Your task to perform on an android device: turn off priority inbox in the gmail app Image 0: 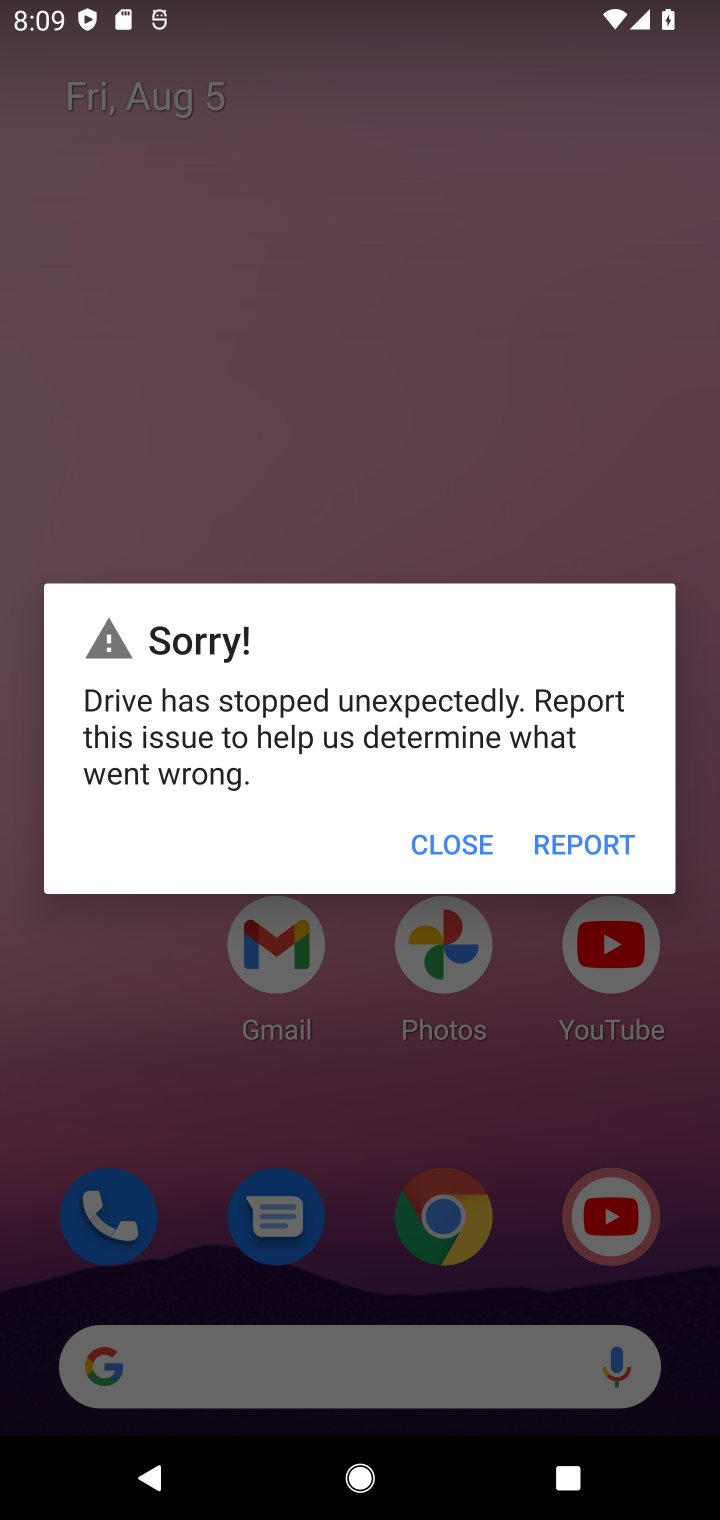
Step 0: press back button
Your task to perform on an android device: turn off priority inbox in the gmail app Image 1: 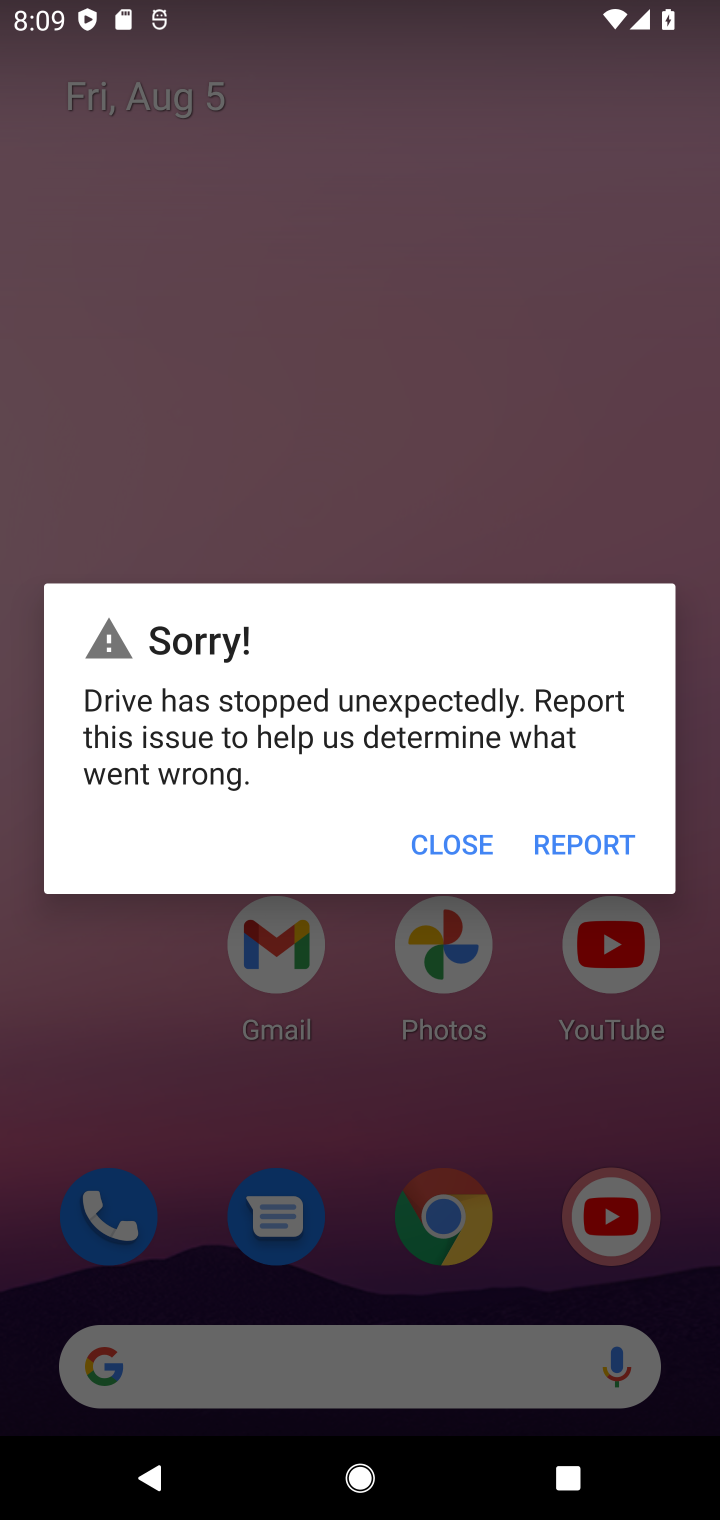
Step 1: press home button
Your task to perform on an android device: turn off priority inbox in the gmail app Image 2: 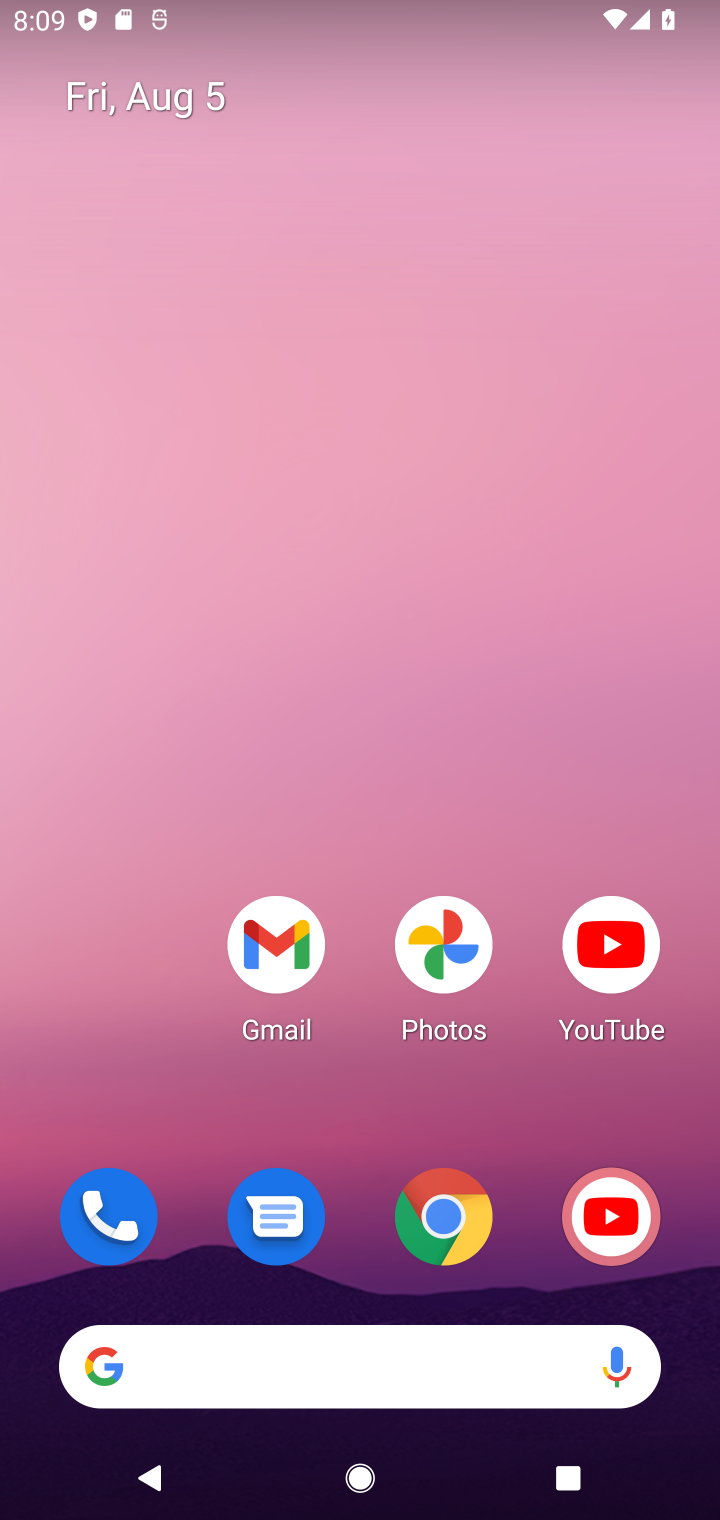
Step 2: drag from (340, 1091) to (265, 224)
Your task to perform on an android device: turn off priority inbox in the gmail app Image 3: 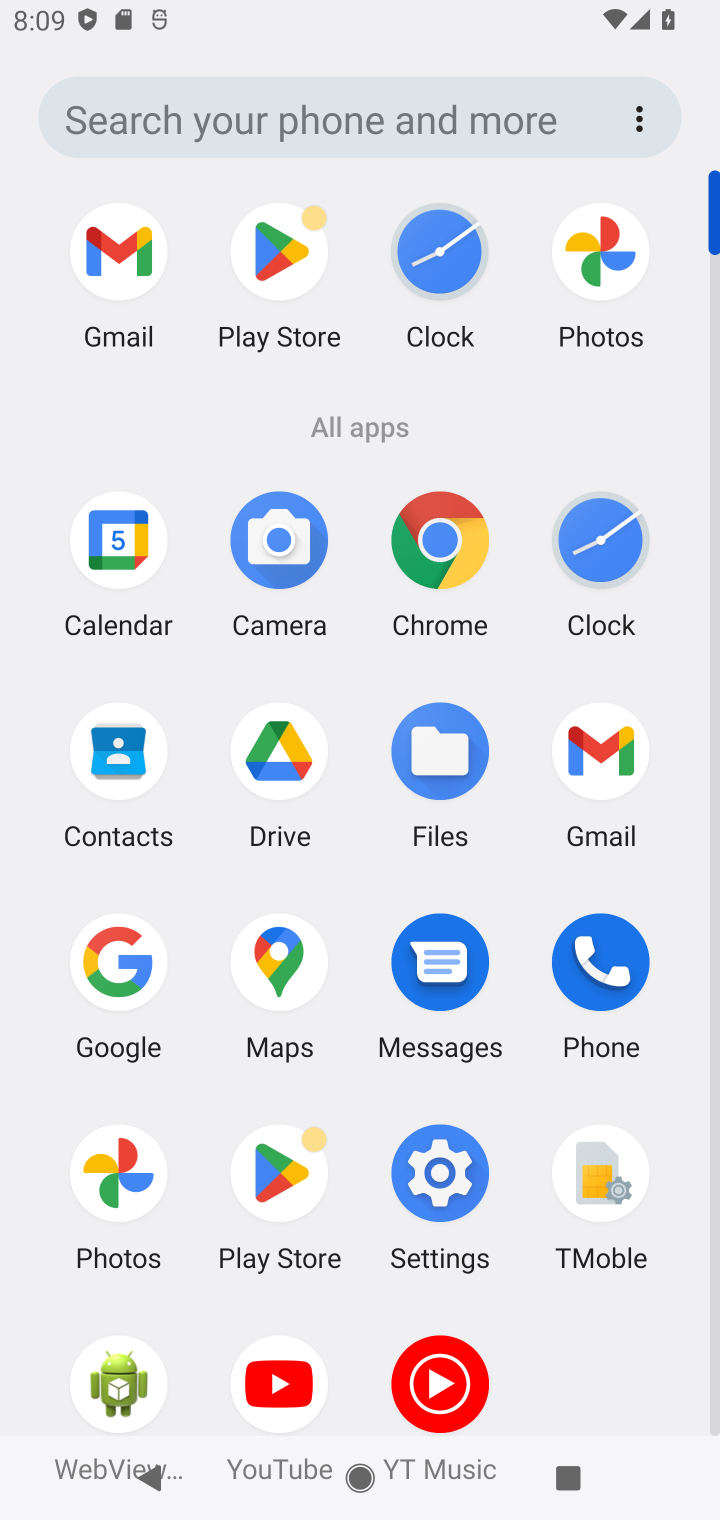
Step 3: click (583, 740)
Your task to perform on an android device: turn off priority inbox in the gmail app Image 4: 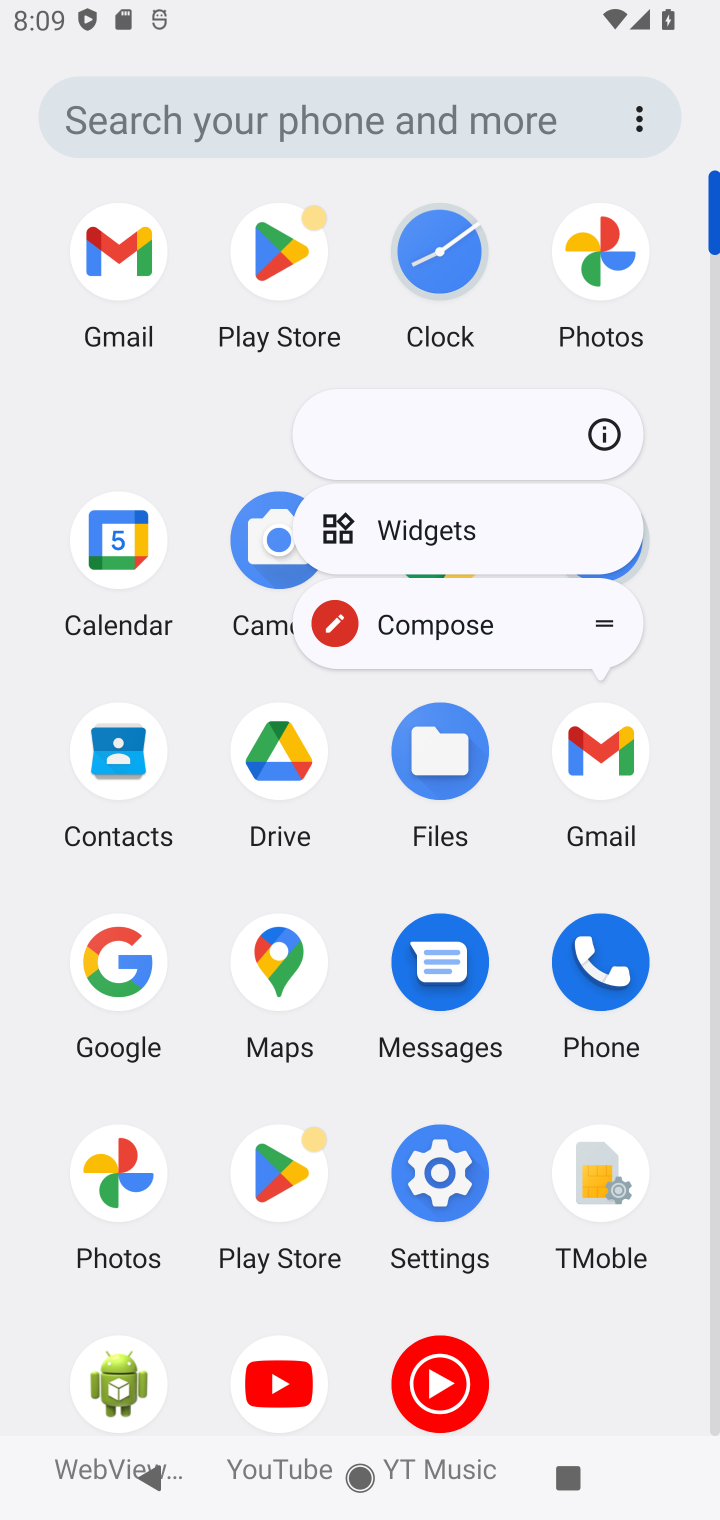
Step 4: click (601, 420)
Your task to perform on an android device: turn off priority inbox in the gmail app Image 5: 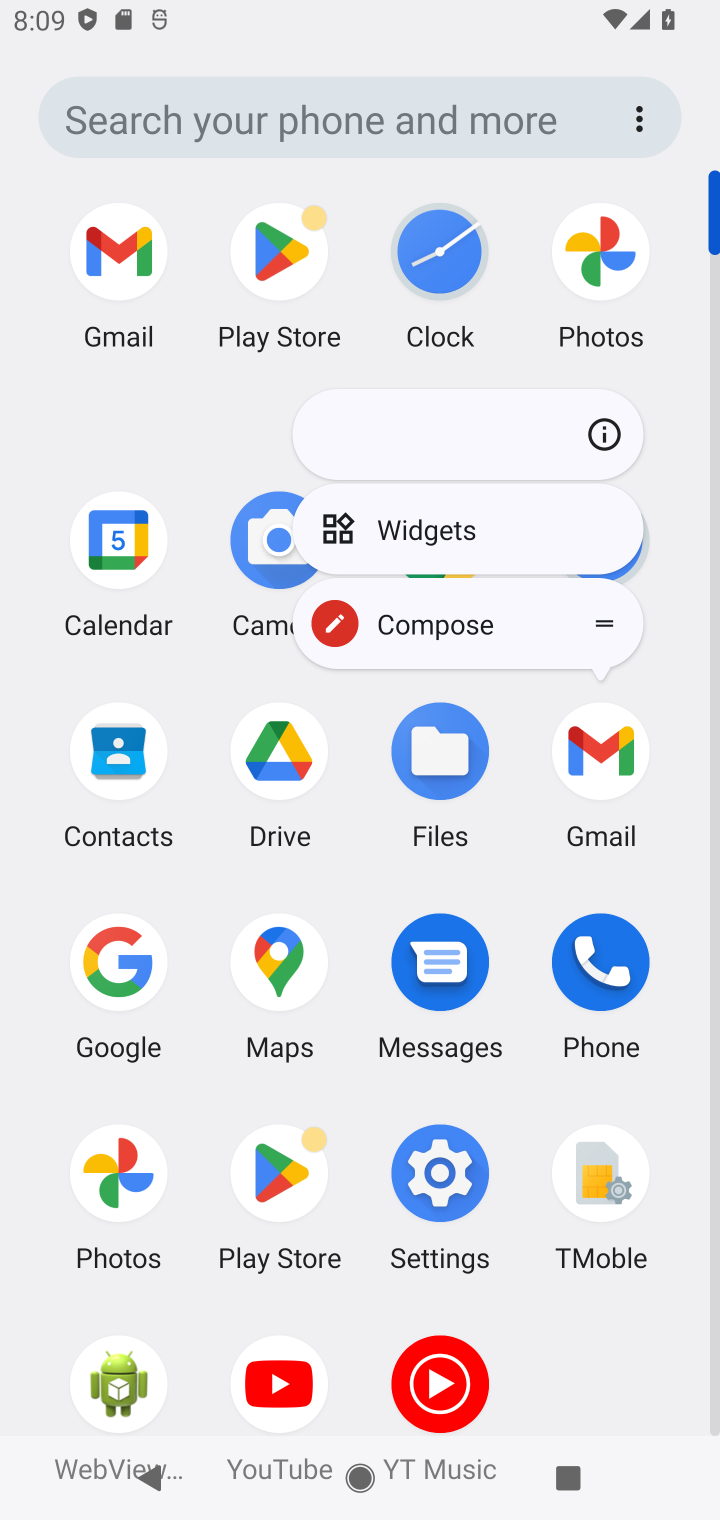
Step 5: click (597, 428)
Your task to perform on an android device: turn off priority inbox in the gmail app Image 6: 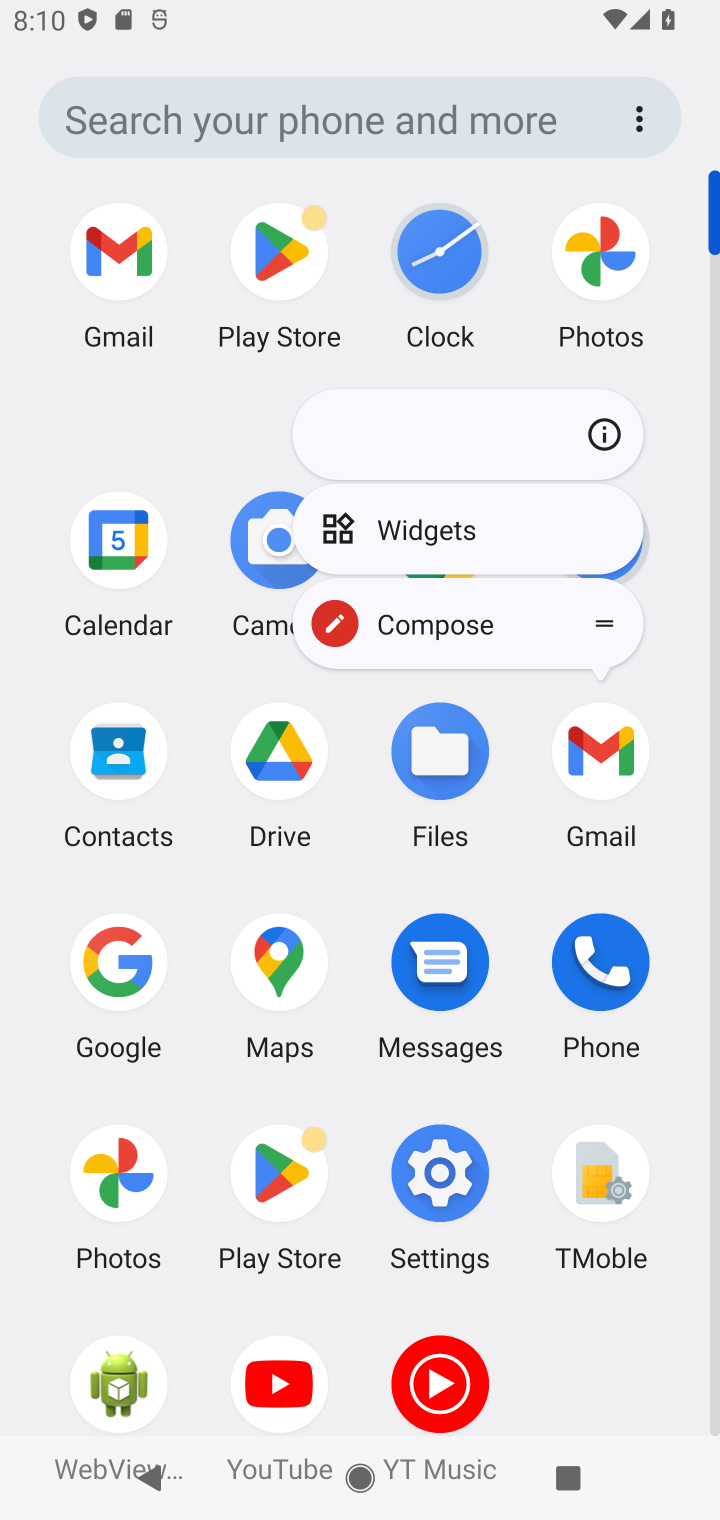
Step 6: click (623, 420)
Your task to perform on an android device: turn off priority inbox in the gmail app Image 7: 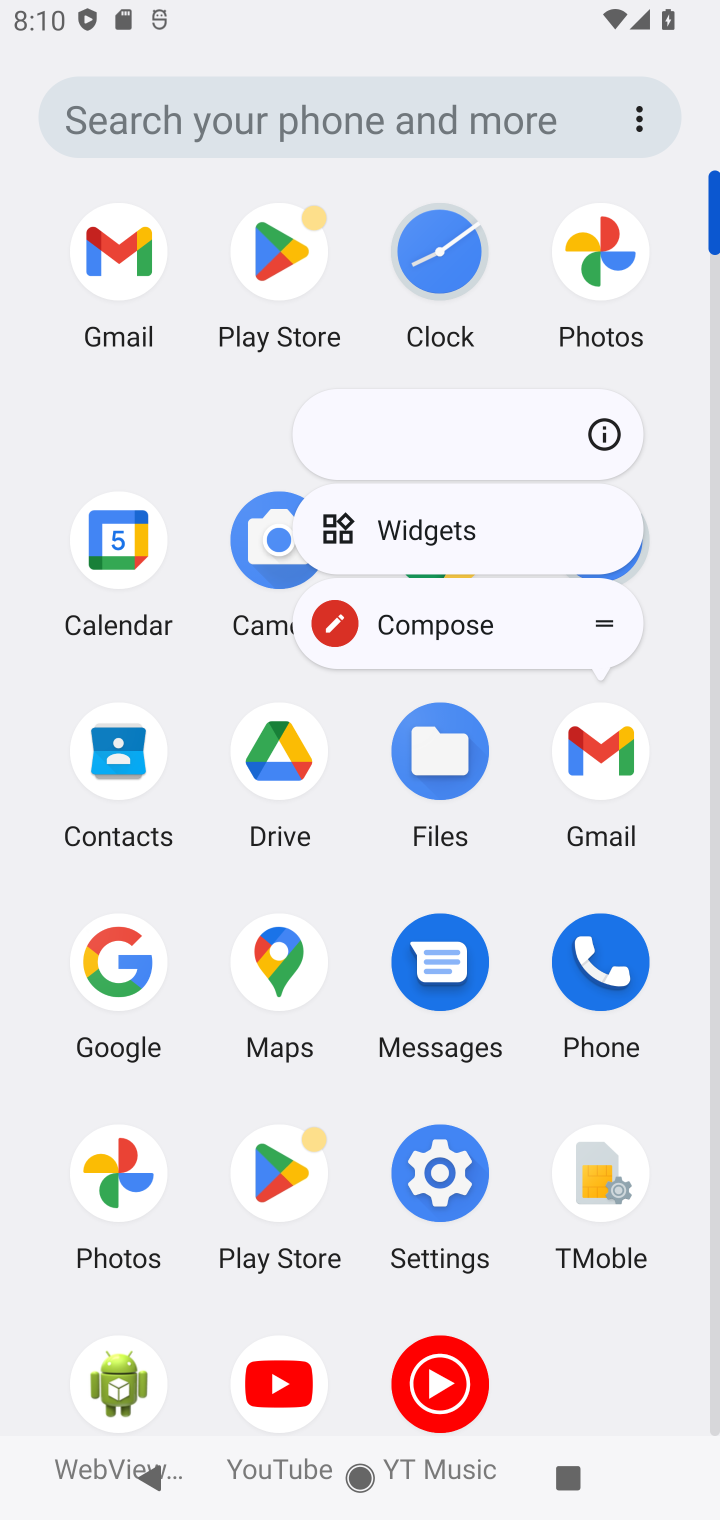
Step 7: click (607, 417)
Your task to perform on an android device: turn off priority inbox in the gmail app Image 8: 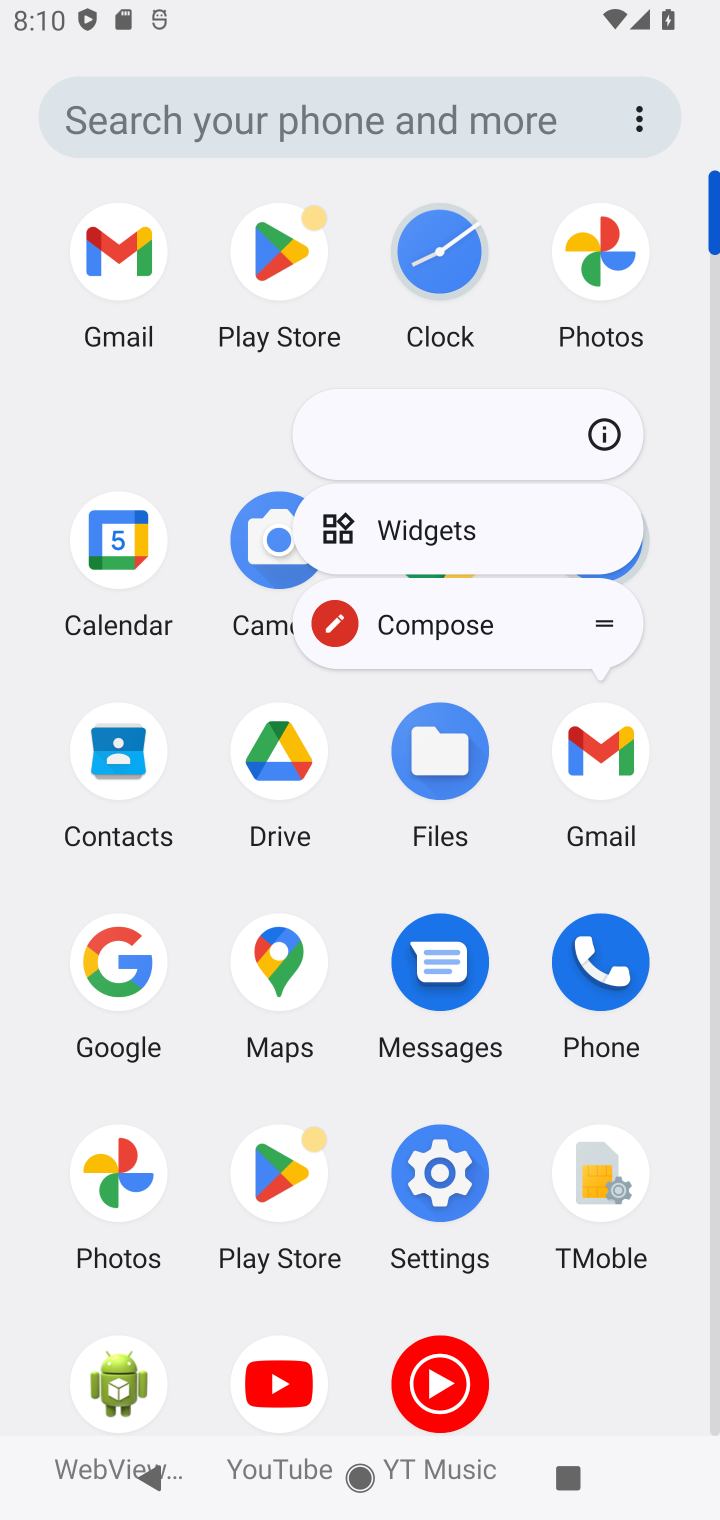
Step 8: click (601, 417)
Your task to perform on an android device: turn off priority inbox in the gmail app Image 9: 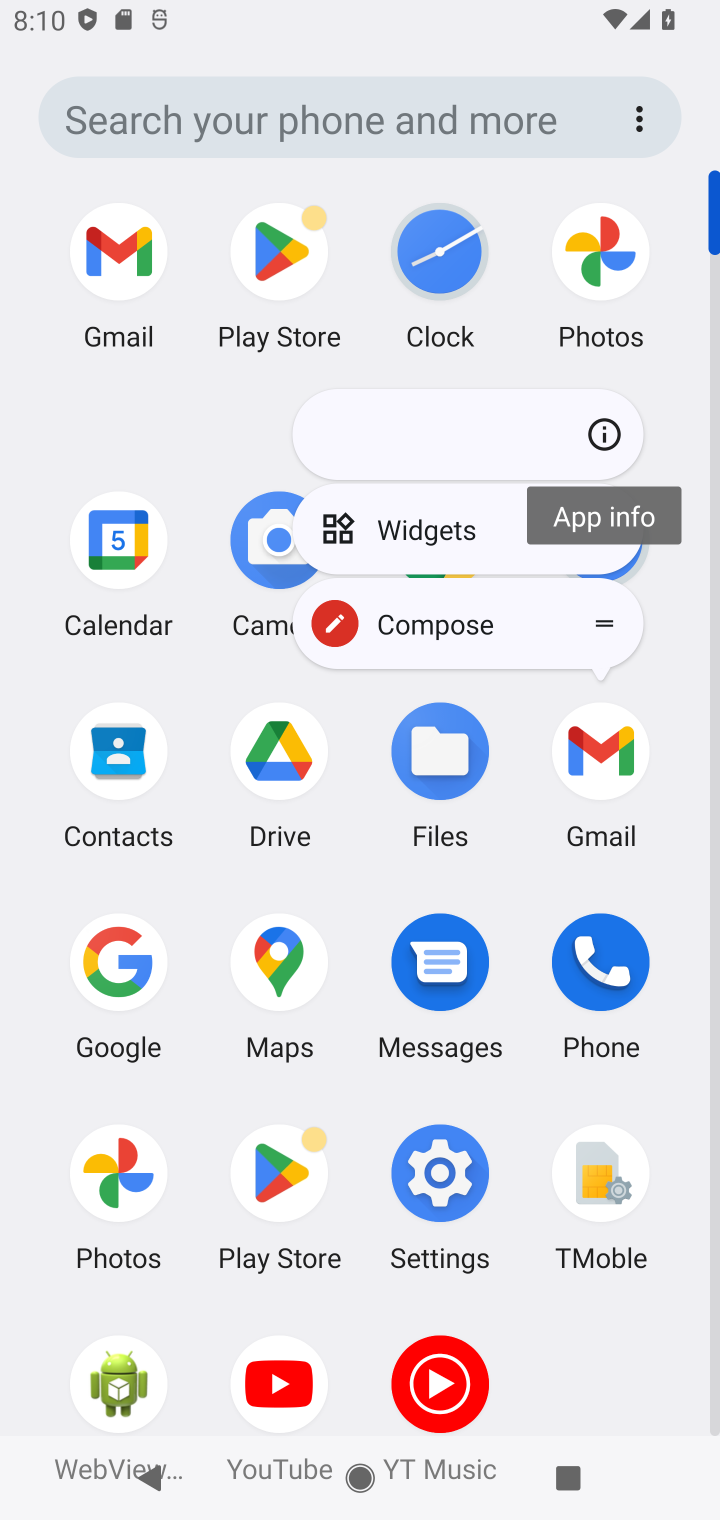
Step 9: click (601, 417)
Your task to perform on an android device: turn off priority inbox in the gmail app Image 10: 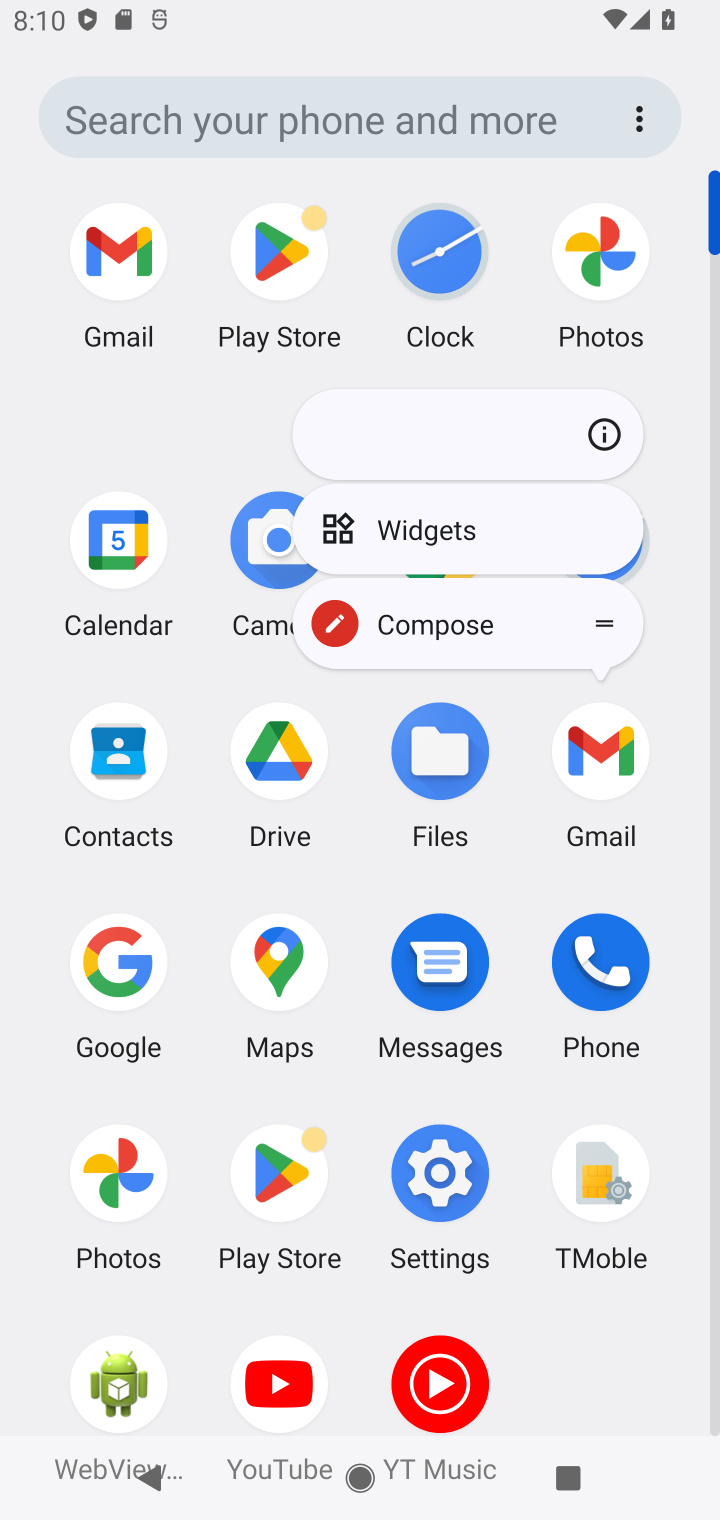
Step 10: click (614, 434)
Your task to perform on an android device: turn off priority inbox in the gmail app Image 11: 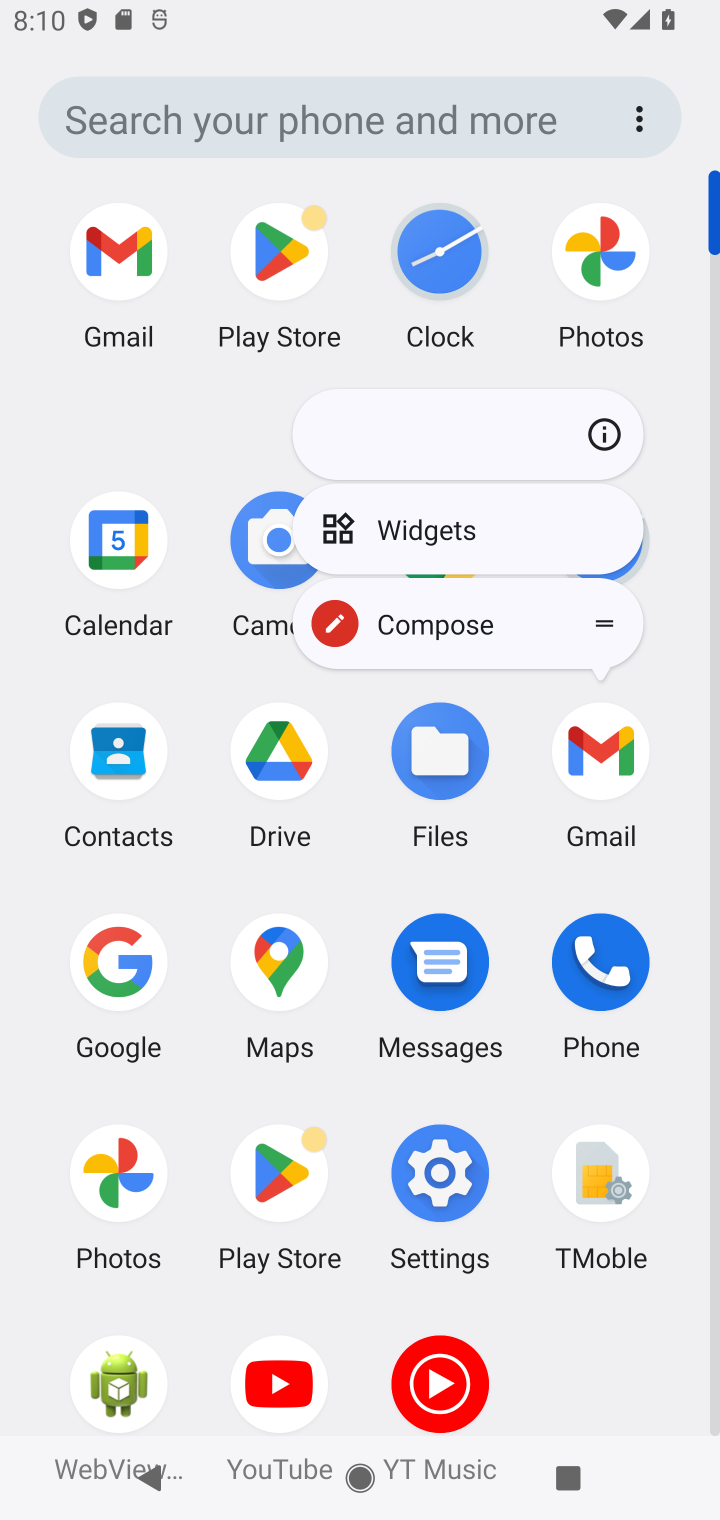
Step 11: click (598, 442)
Your task to perform on an android device: turn off priority inbox in the gmail app Image 12: 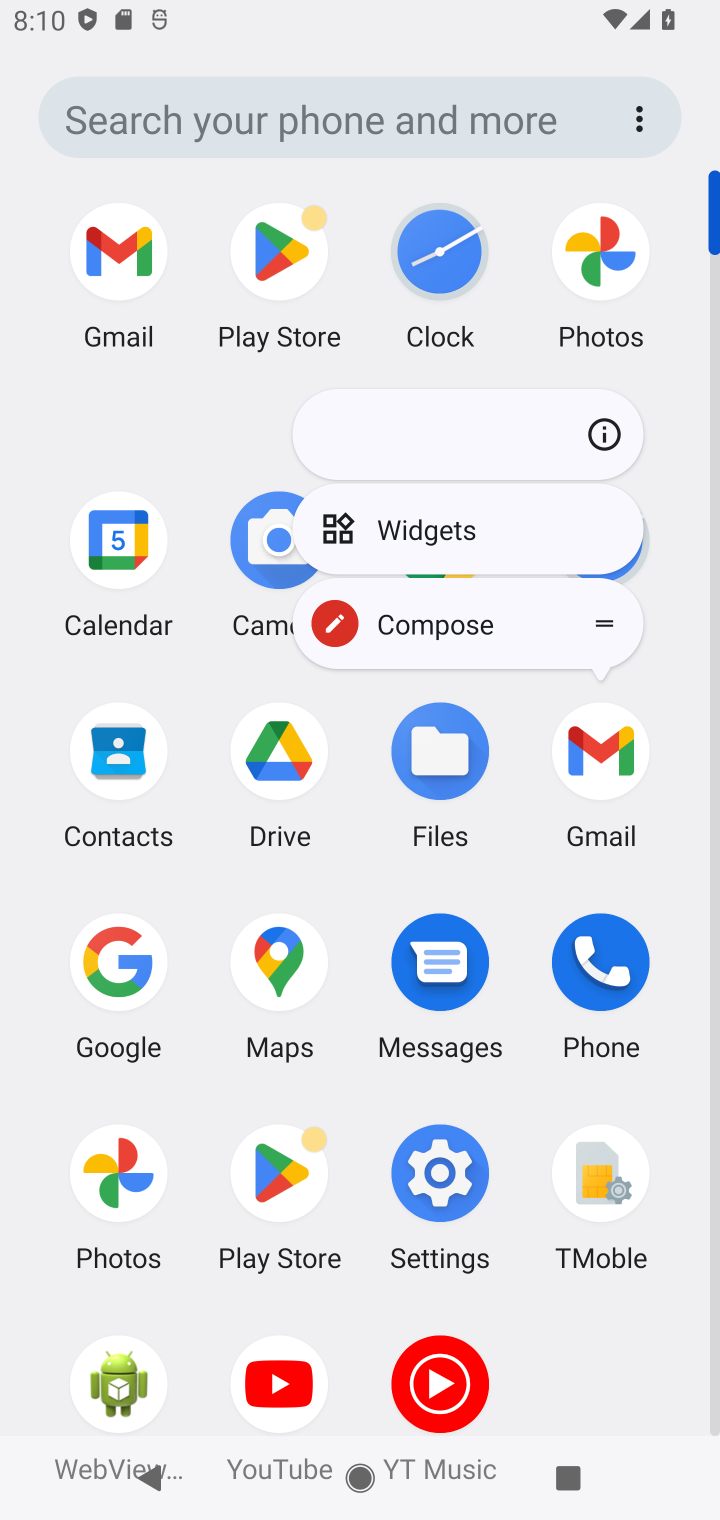
Step 12: click (597, 429)
Your task to perform on an android device: turn off priority inbox in the gmail app Image 13: 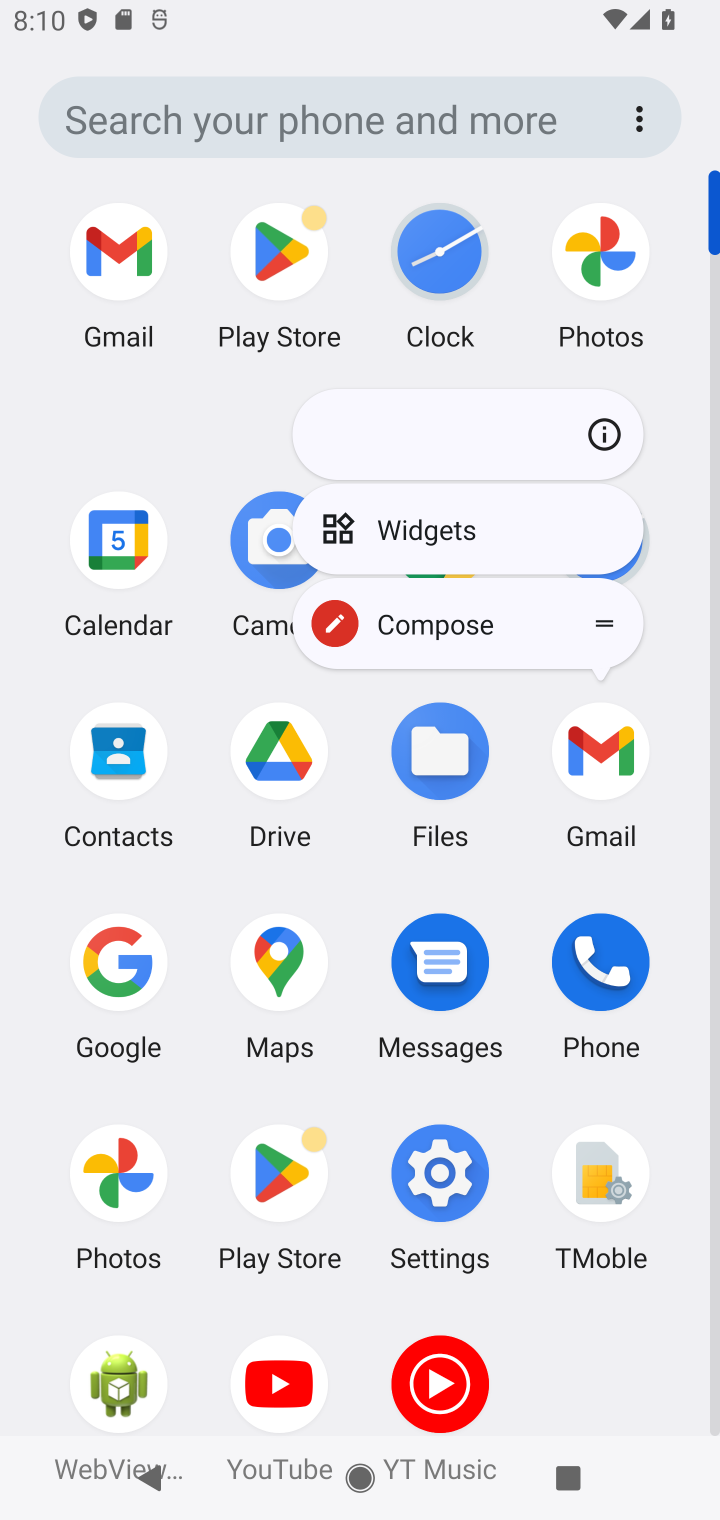
Step 13: click (599, 414)
Your task to perform on an android device: turn off priority inbox in the gmail app Image 14: 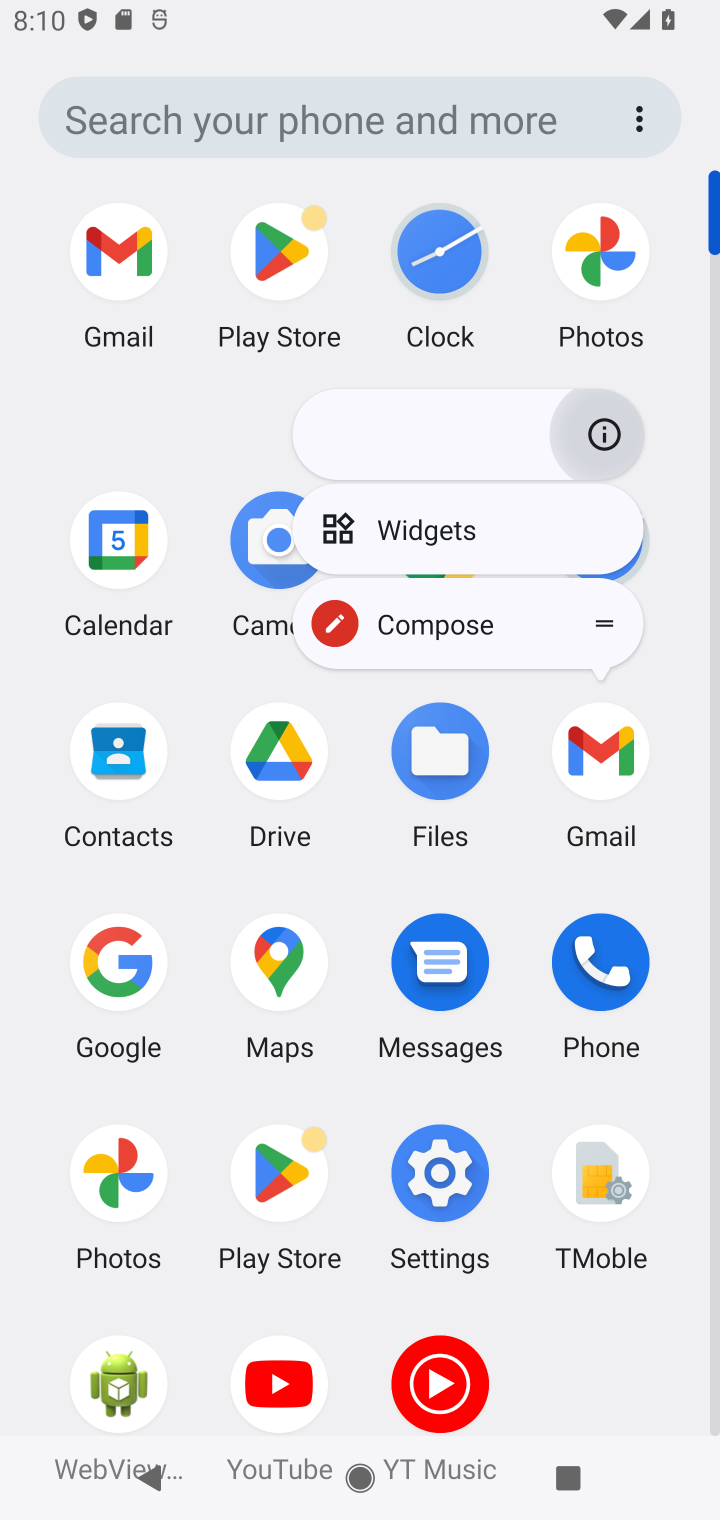
Step 14: click (603, 414)
Your task to perform on an android device: turn off priority inbox in the gmail app Image 15: 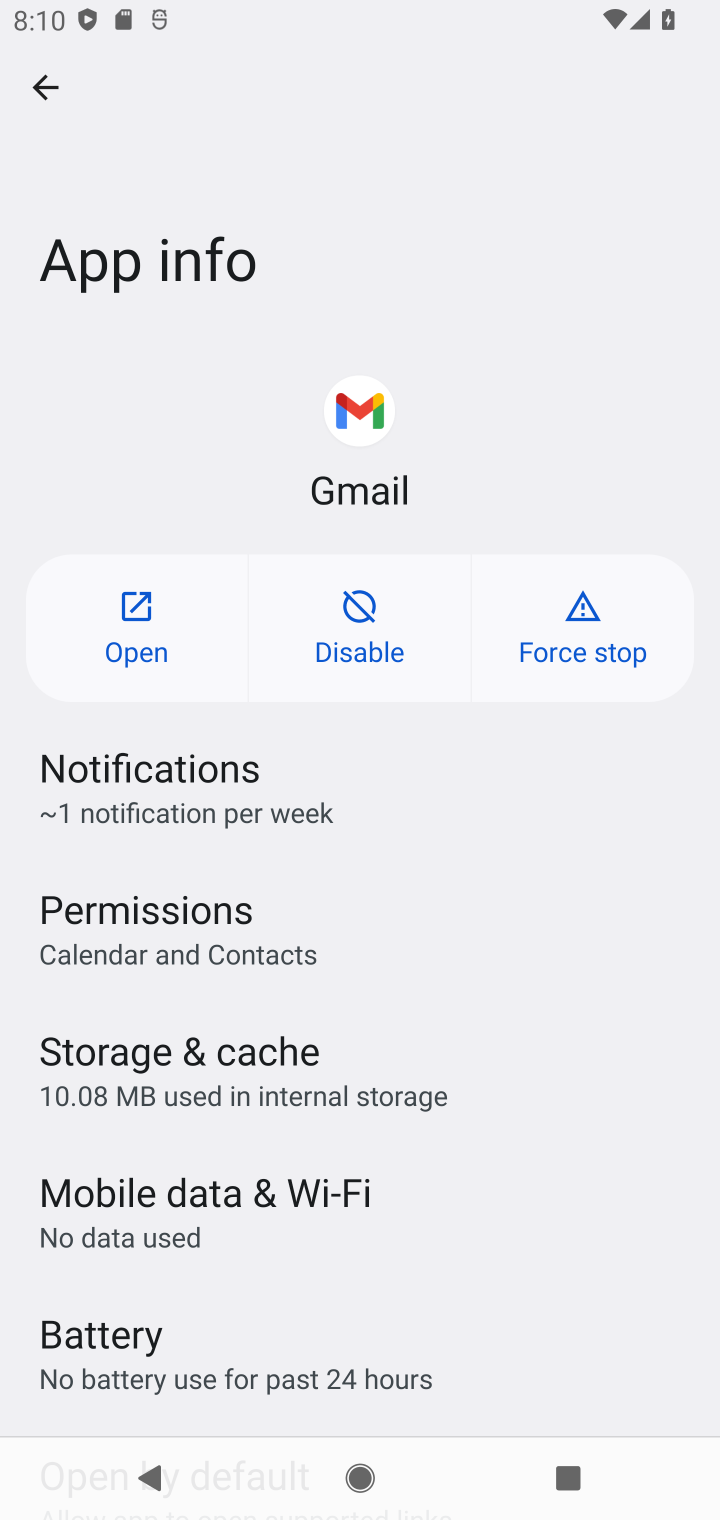
Step 15: click (129, 616)
Your task to perform on an android device: turn off priority inbox in the gmail app Image 16: 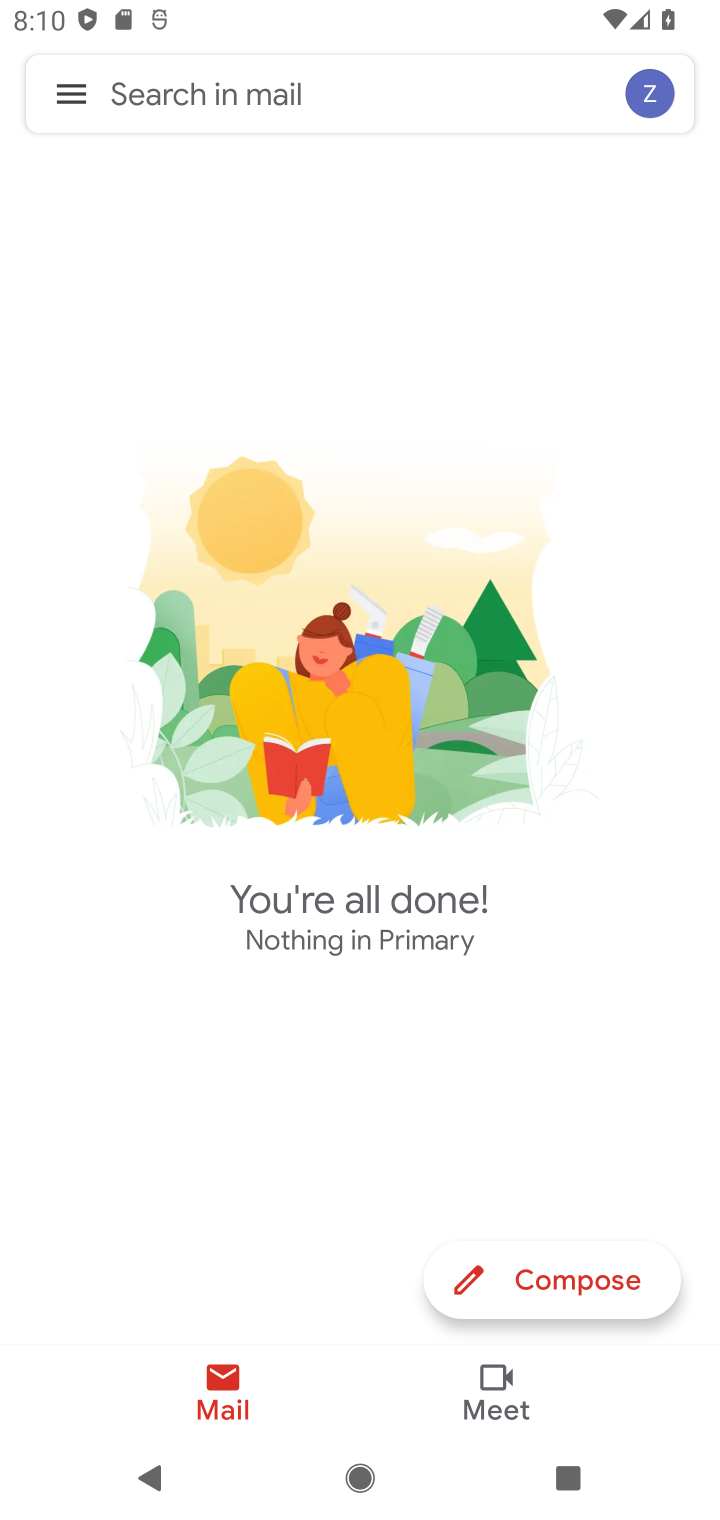
Step 16: drag from (357, 1028) to (468, 555)
Your task to perform on an android device: turn off priority inbox in the gmail app Image 17: 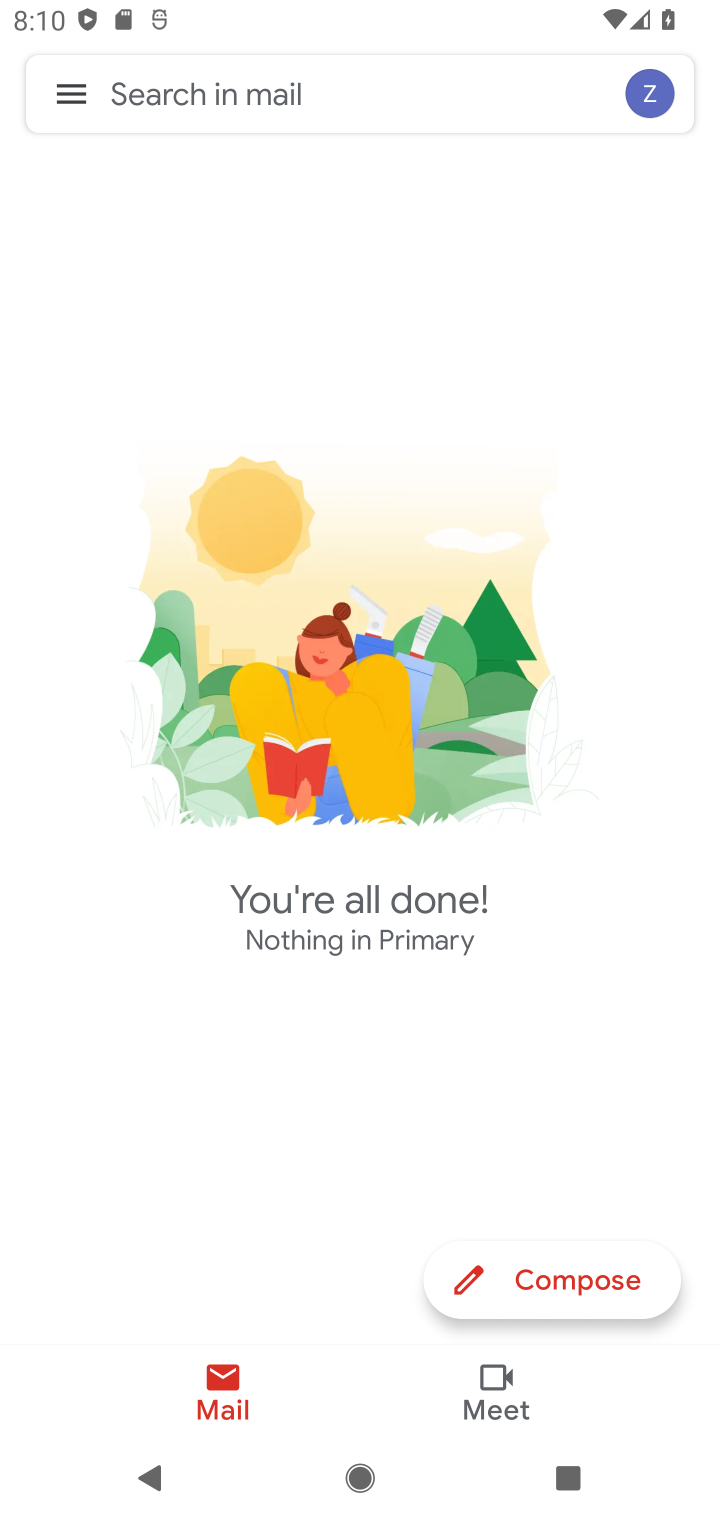
Step 17: click (81, 93)
Your task to perform on an android device: turn off priority inbox in the gmail app Image 18: 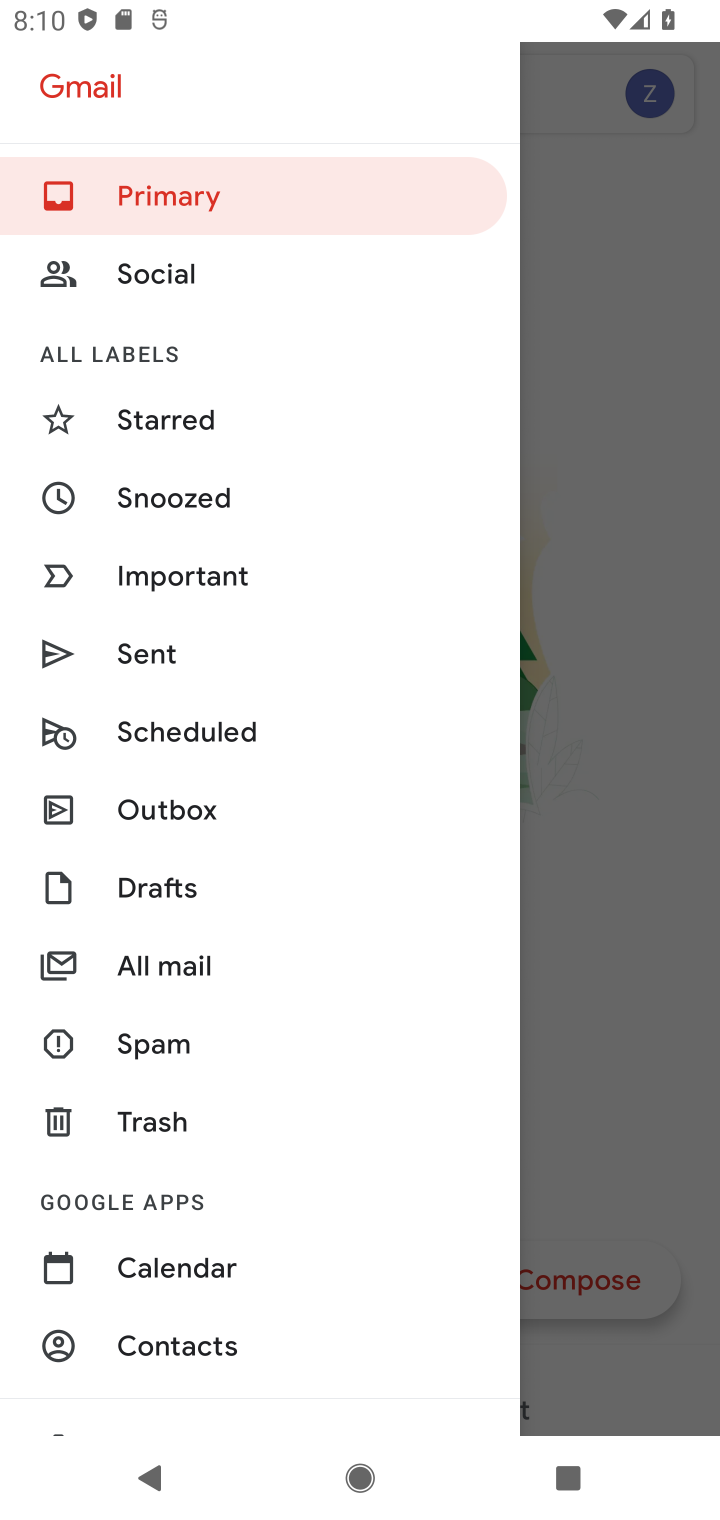
Step 18: drag from (155, 952) to (273, 325)
Your task to perform on an android device: turn off priority inbox in the gmail app Image 19: 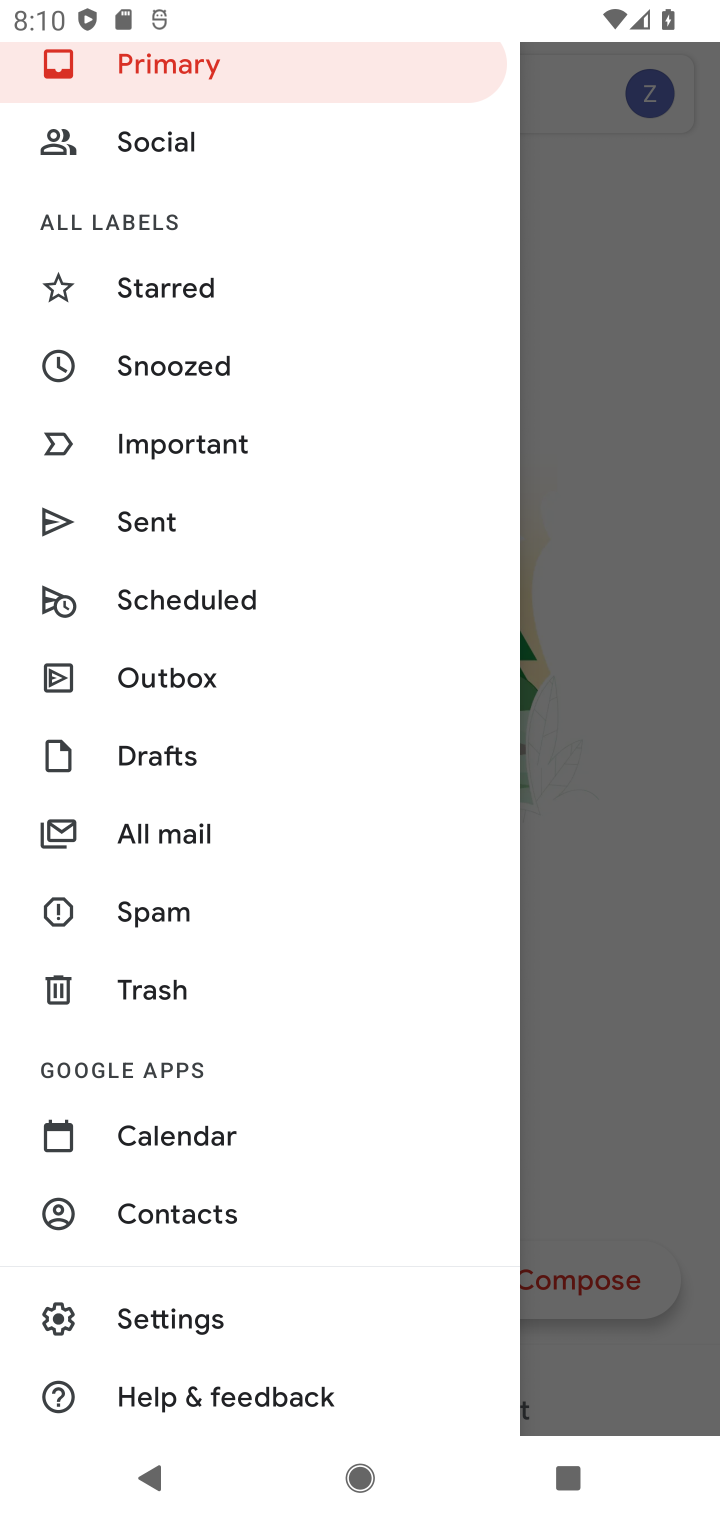
Step 19: click (194, 1317)
Your task to perform on an android device: turn off priority inbox in the gmail app Image 20: 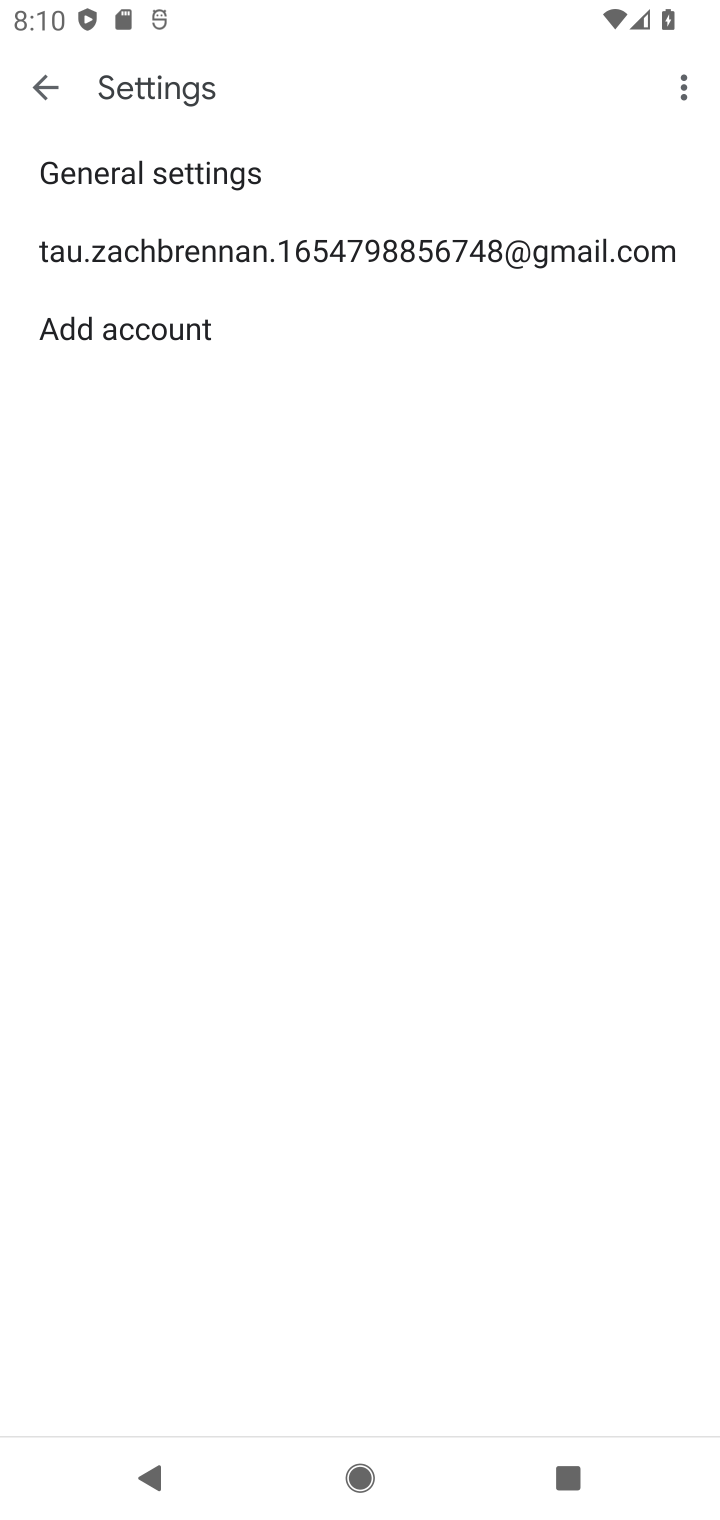
Step 20: click (349, 228)
Your task to perform on an android device: turn off priority inbox in the gmail app Image 21: 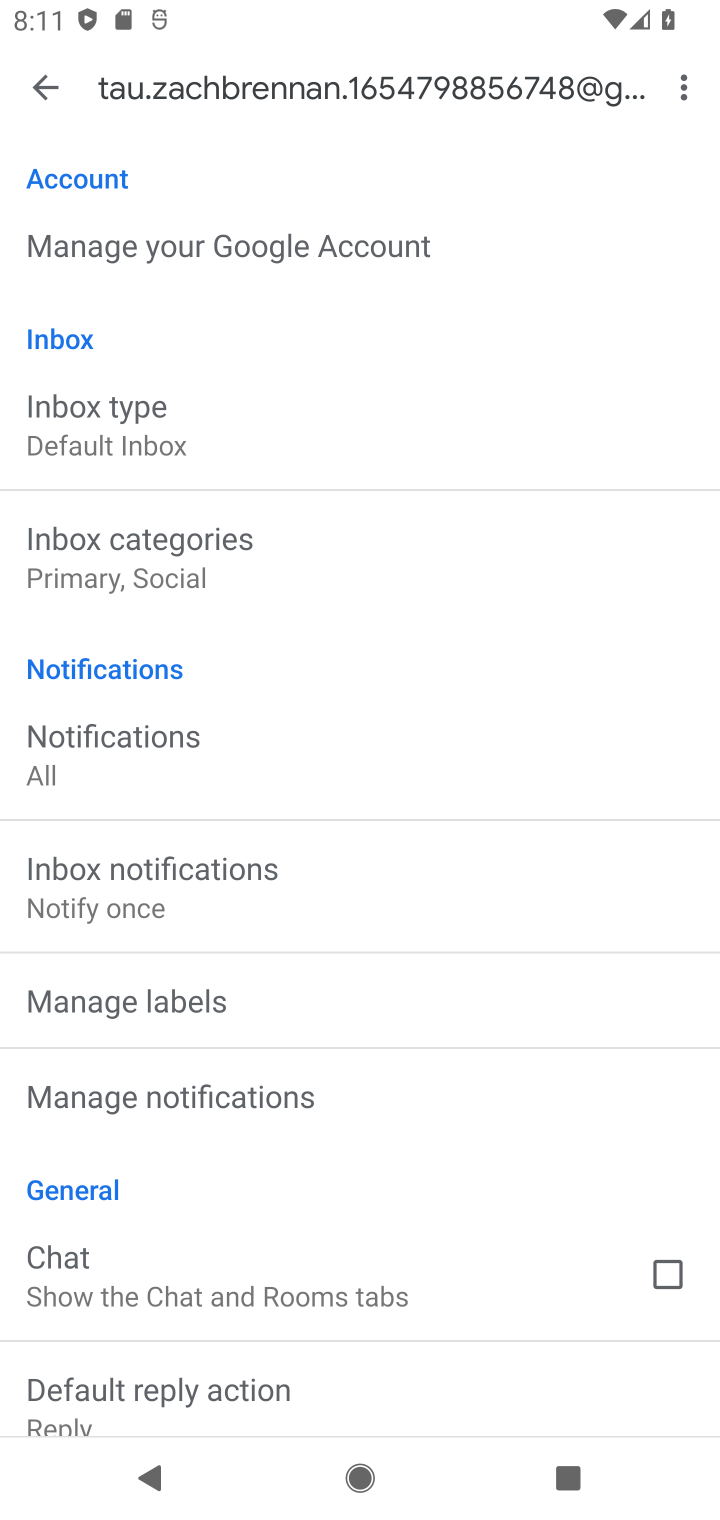
Step 21: drag from (265, 1216) to (380, 1396)
Your task to perform on an android device: turn off priority inbox in the gmail app Image 22: 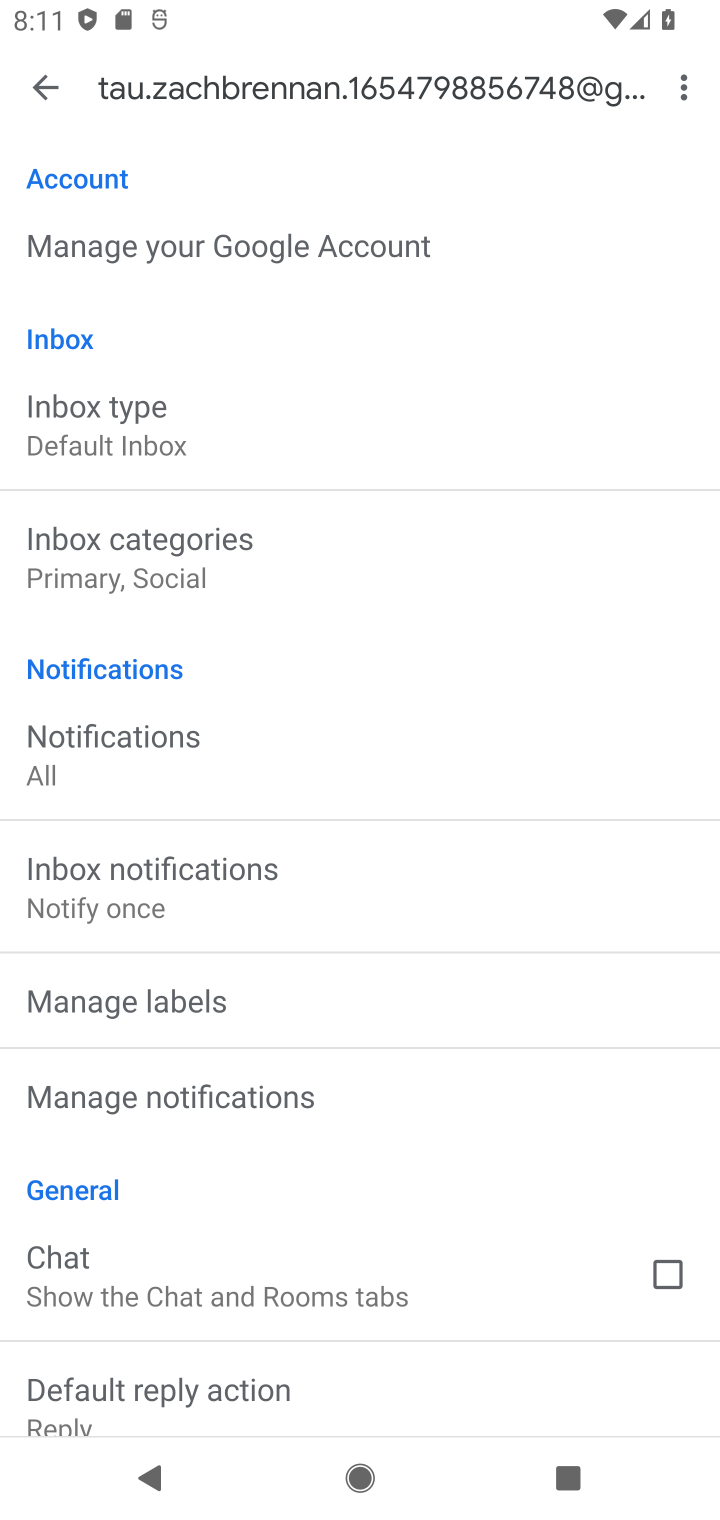
Step 22: click (176, 421)
Your task to perform on an android device: turn off priority inbox in the gmail app Image 23: 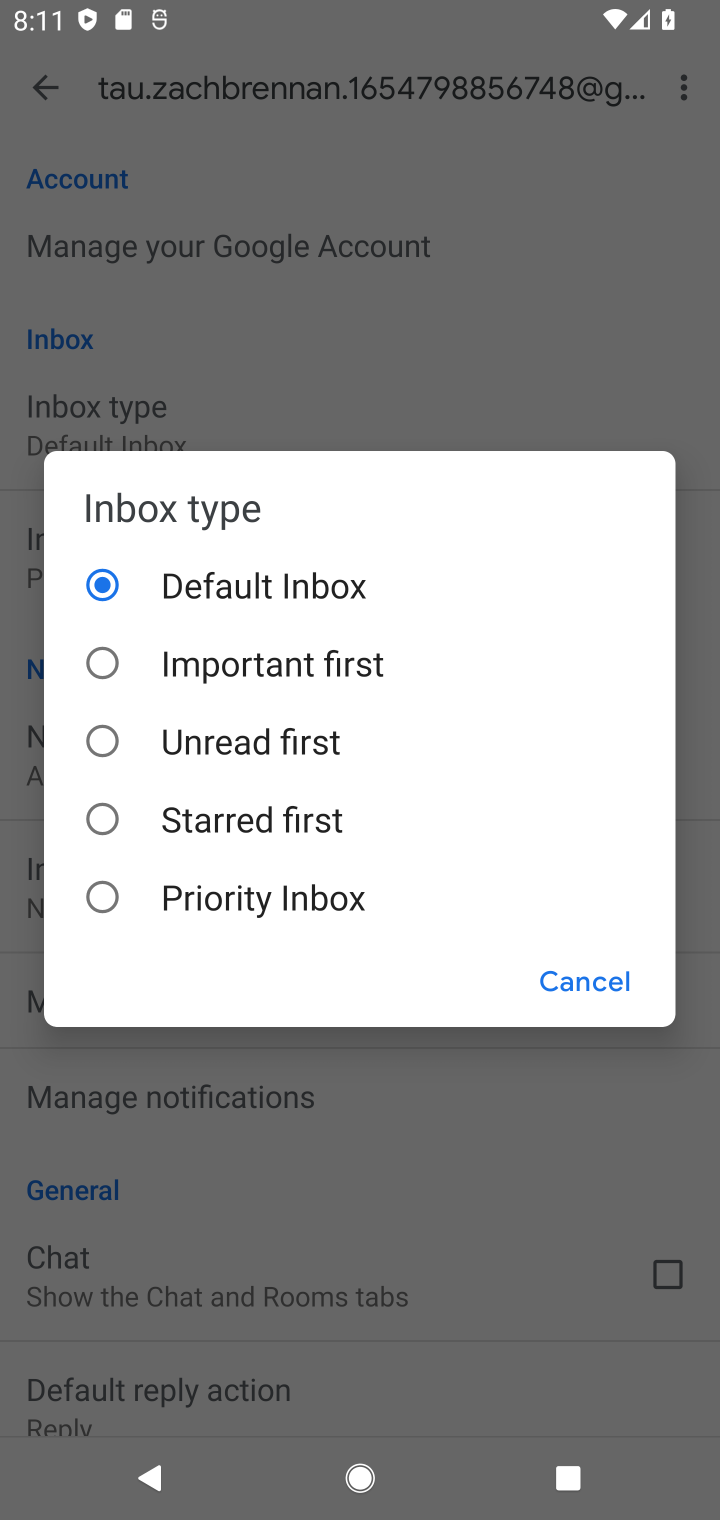
Step 23: task complete